Your task to perform on an android device: Open the Play Movies app and select the watchlist tab. Image 0: 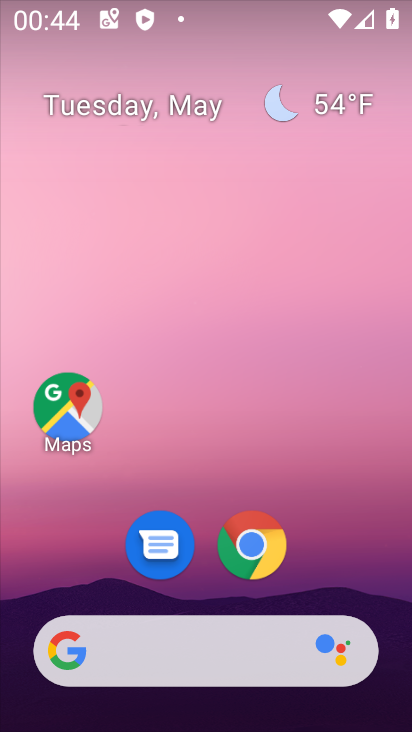
Step 0: drag from (362, 541) to (385, 1)
Your task to perform on an android device: Open the Play Movies app and select the watchlist tab. Image 1: 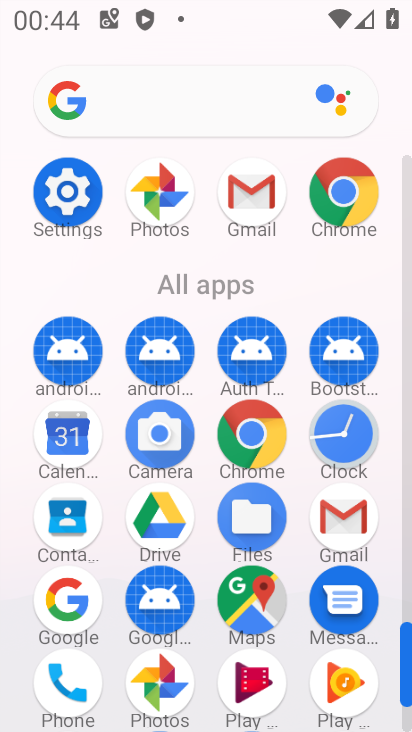
Step 1: click (73, 176)
Your task to perform on an android device: Open the Play Movies app and select the watchlist tab. Image 2: 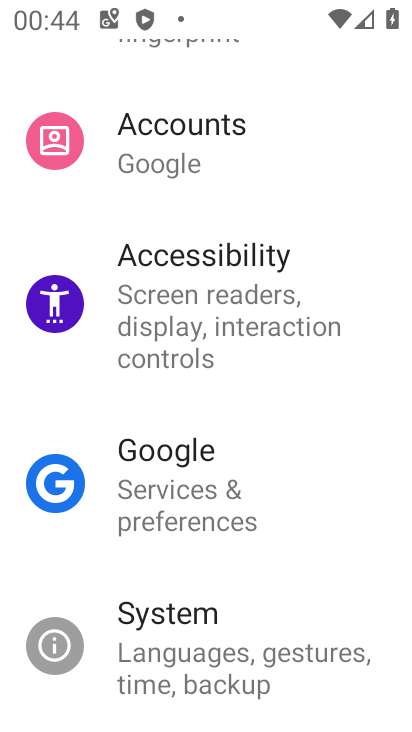
Step 2: drag from (246, 598) to (247, 269)
Your task to perform on an android device: Open the Play Movies app and select the watchlist tab. Image 3: 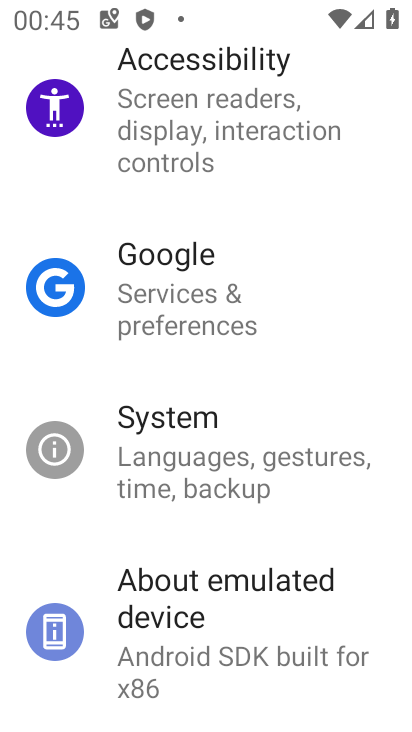
Step 3: press home button
Your task to perform on an android device: Open the Play Movies app and select the watchlist tab. Image 4: 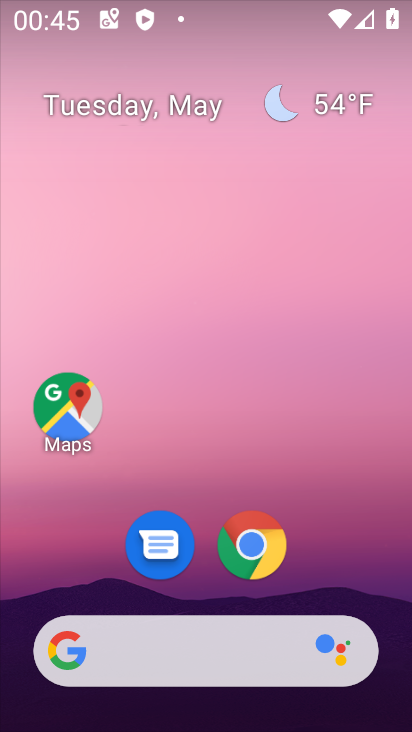
Step 4: drag from (363, 499) to (394, 34)
Your task to perform on an android device: Open the Play Movies app and select the watchlist tab. Image 5: 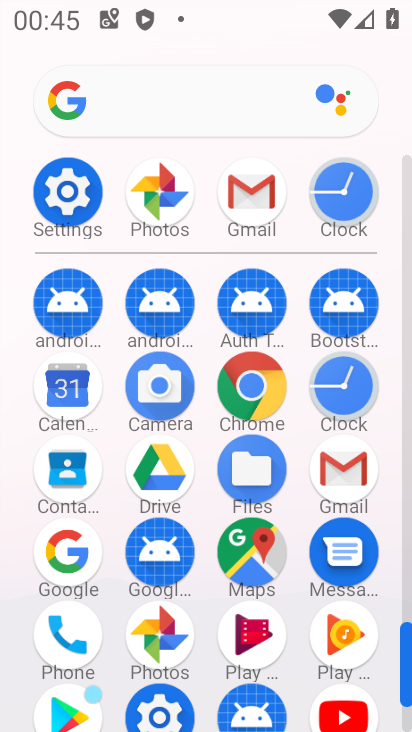
Step 5: click (241, 637)
Your task to perform on an android device: Open the Play Movies app and select the watchlist tab. Image 6: 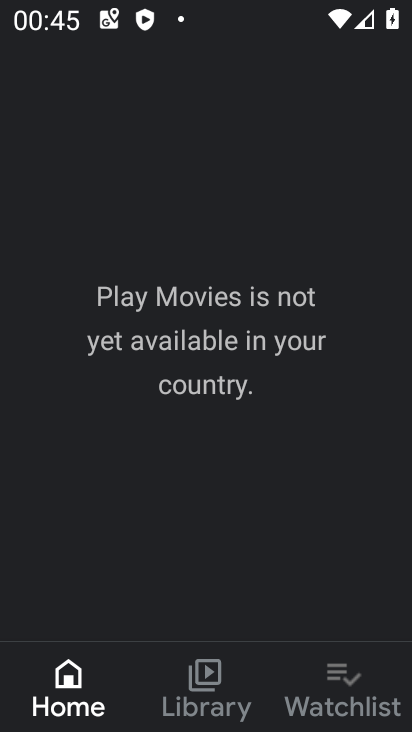
Step 6: click (357, 664)
Your task to perform on an android device: Open the Play Movies app and select the watchlist tab. Image 7: 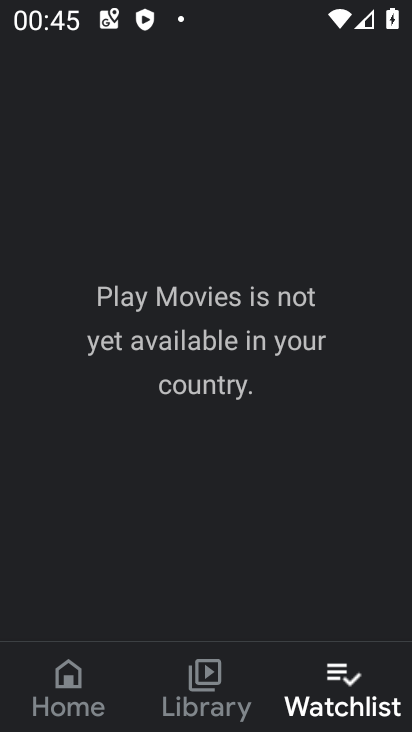
Step 7: task complete